Your task to perform on an android device: delete location history Image 0: 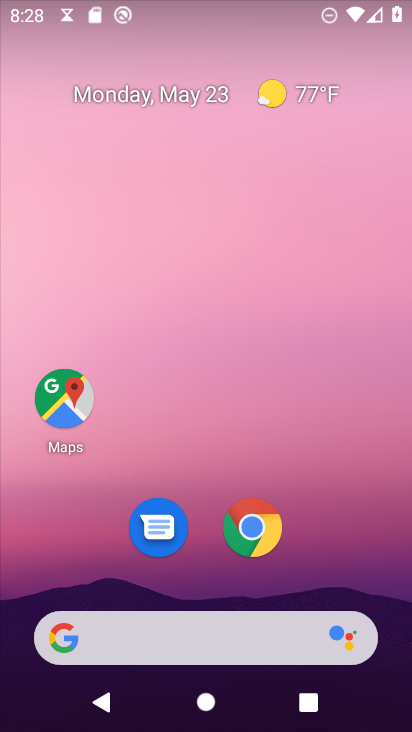
Step 0: drag from (219, 659) to (222, 93)
Your task to perform on an android device: delete location history Image 1: 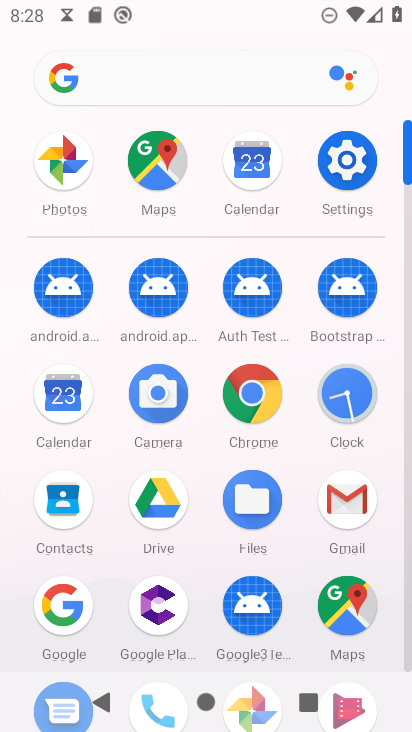
Step 1: drag from (215, 549) to (238, 574)
Your task to perform on an android device: delete location history Image 2: 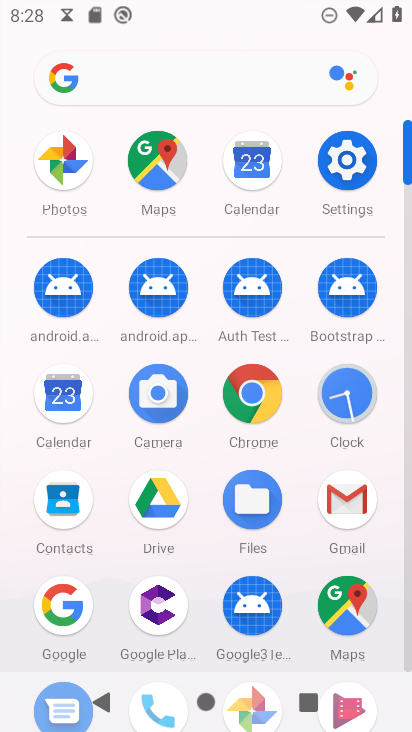
Step 2: click (347, 183)
Your task to perform on an android device: delete location history Image 3: 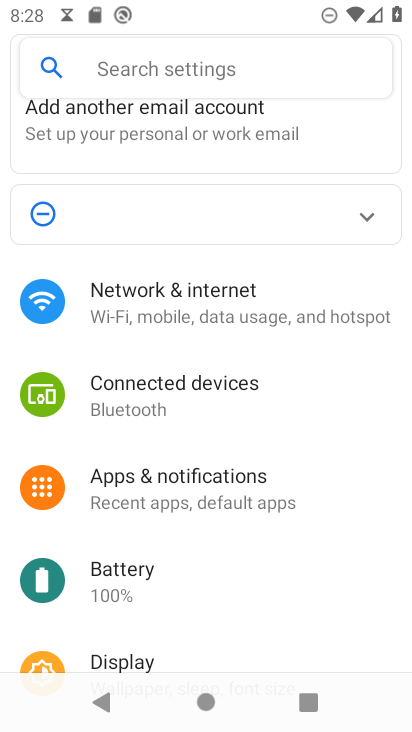
Step 3: click (235, 85)
Your task to perform on an android device: delete location history Image 4: 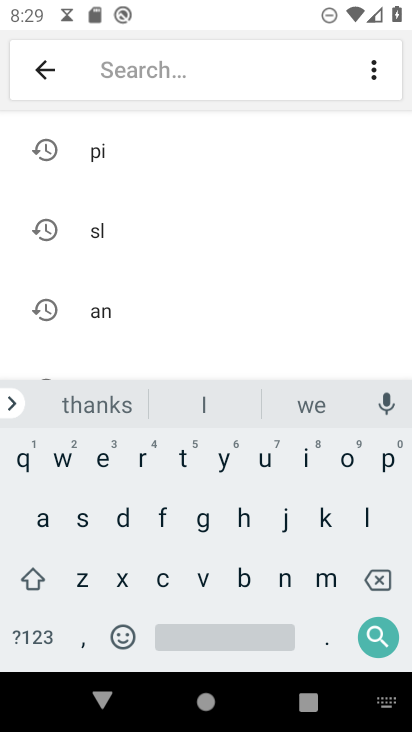
Step 4: click (360, 513)
Your task to perform on an android device: delete location history Image 5: 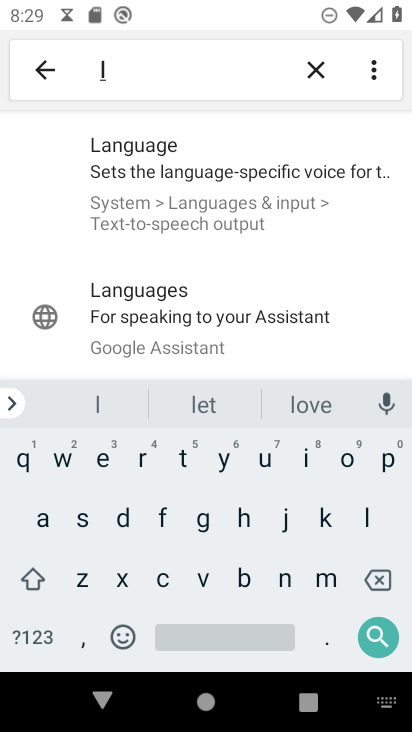
Step 5: click (340, 464)
Your task to perform on an android device: delete location history Image 6: 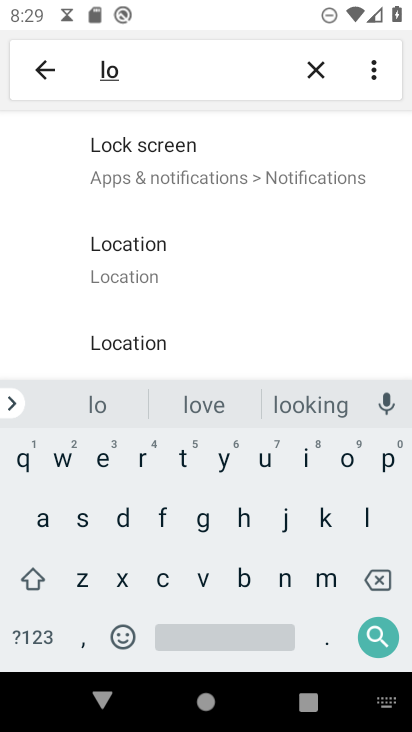
Step 6: click (173, 274)
Your task to perform on an android device: delete location history Image 7: 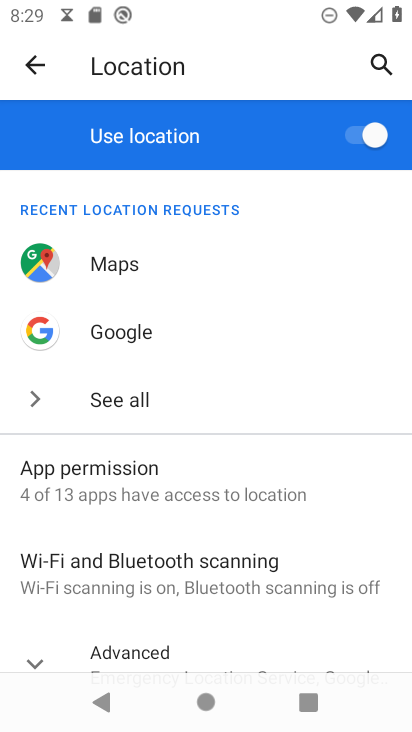
Step 7: click (40, 643)
Your task to perform on an android device: delete location history Image 8: 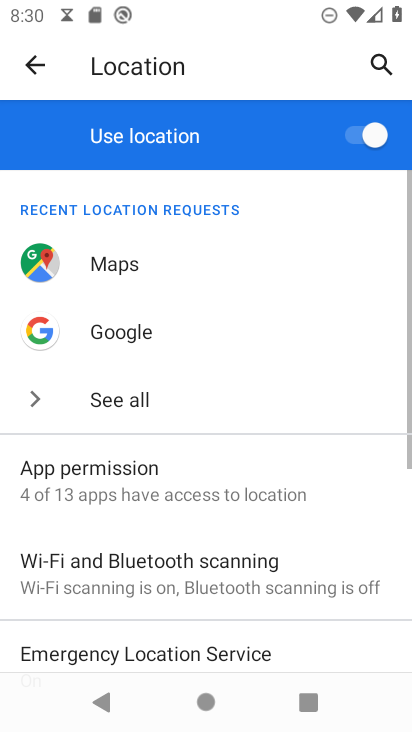
Step 8: drag from (170, 575) to (218, 236)
Your task to perform on an android device: delete location history Image 9: 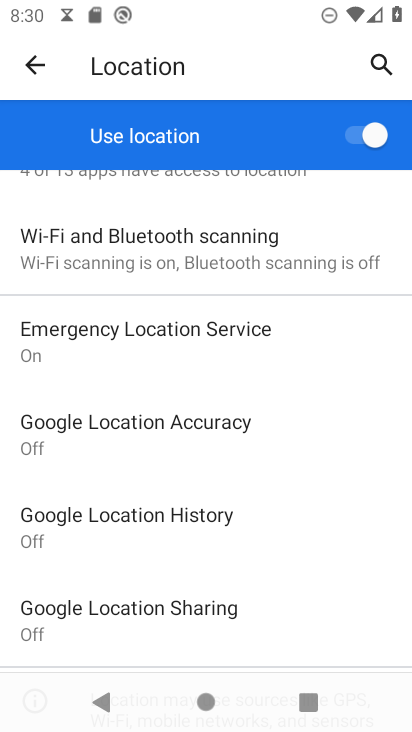
Step 9: click (163, 512)
Your task to perform on an android device: delete location history Image 10: 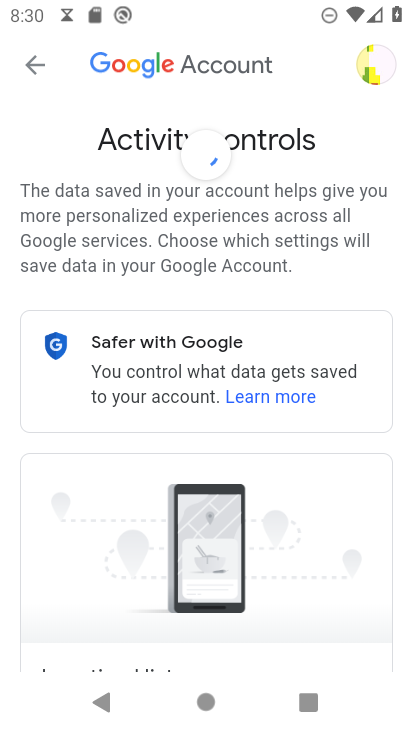
Step 10: task complete